Your task to perform on an android device: Open the web browser Image 0: 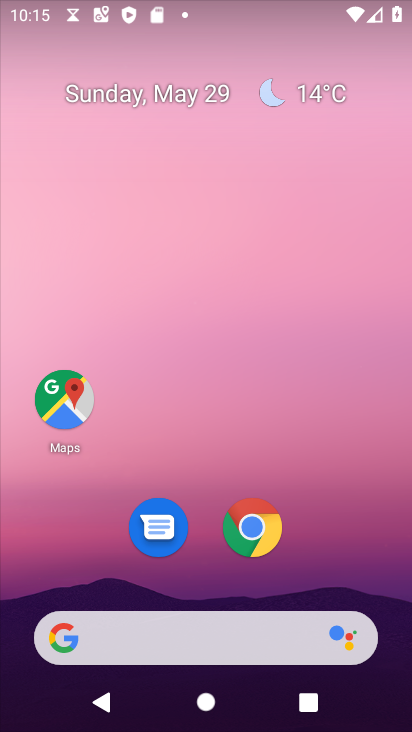
Step 0: press home button
Your task to perform on an android device: Open the web browser Image 1: 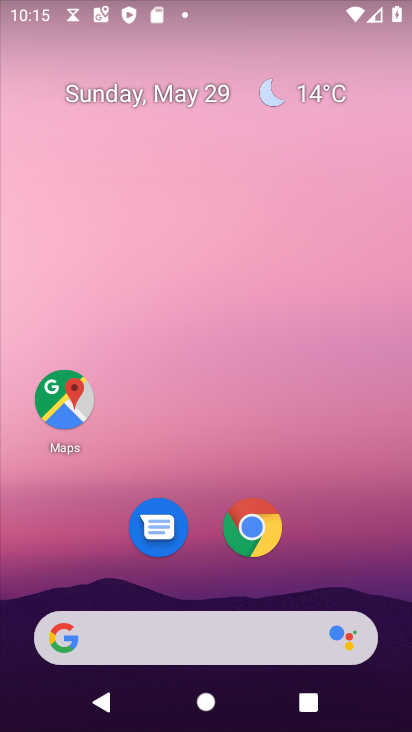
Step 1: click (257, 539)
Your task to perform on an android device: Open the web browser Image 2: 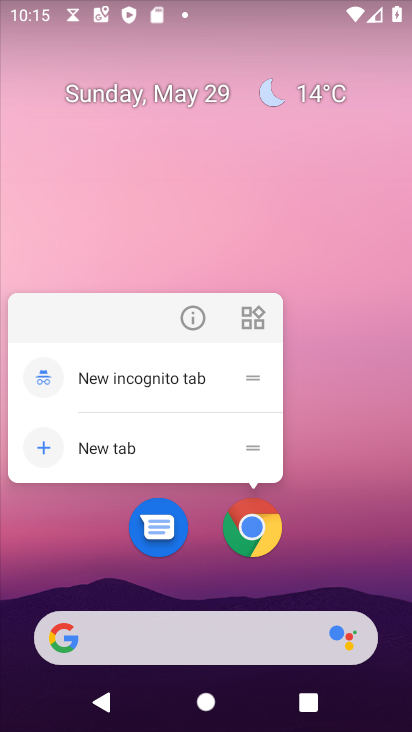
Step 2: click (262, 547)
Your task to perform on an android device: Open the web browser Image 3: 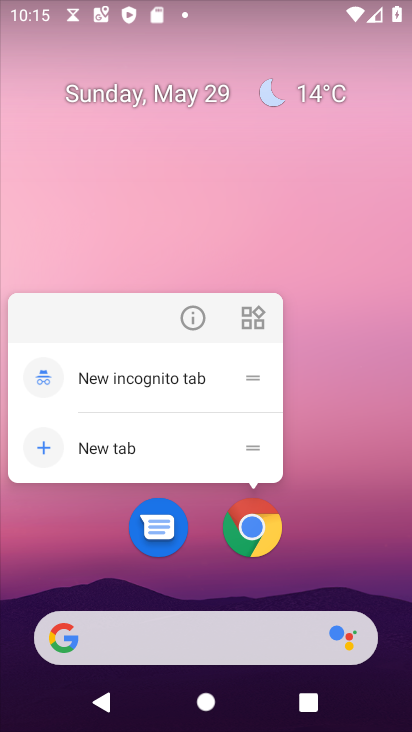
Step 3: click (250, 539)
Your task to perform on an android device: Open the web browser Image 4: 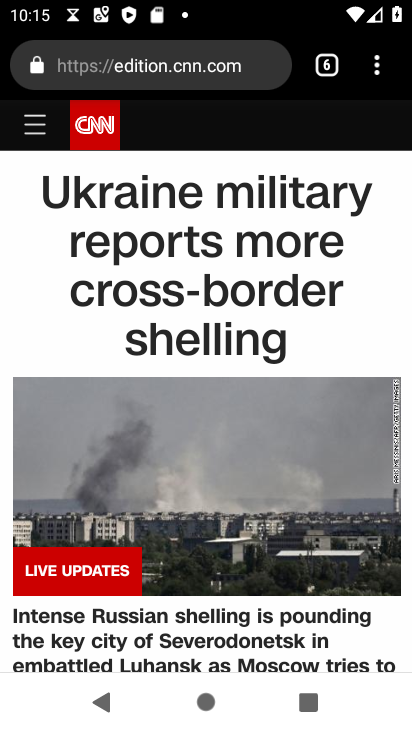
Step 4: task complete